Your task to perform on an android device: turn off smart reply in the gmail app Image 0: 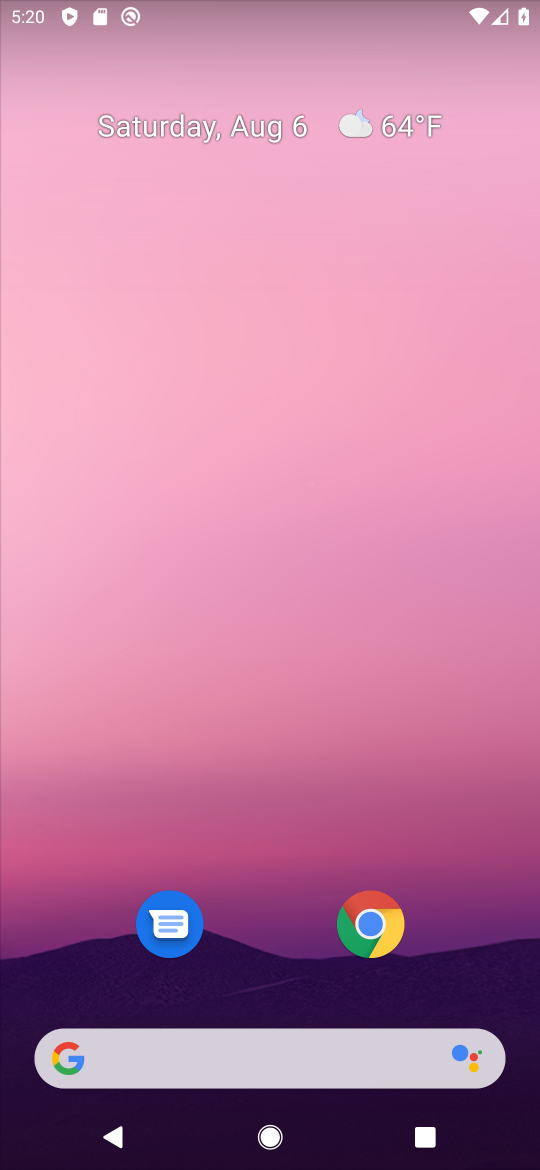
Step 0: drag from (285, 965) to (287, 318)
Your task to perform on an android device: turn off smart reply in the gmail app Image 1: 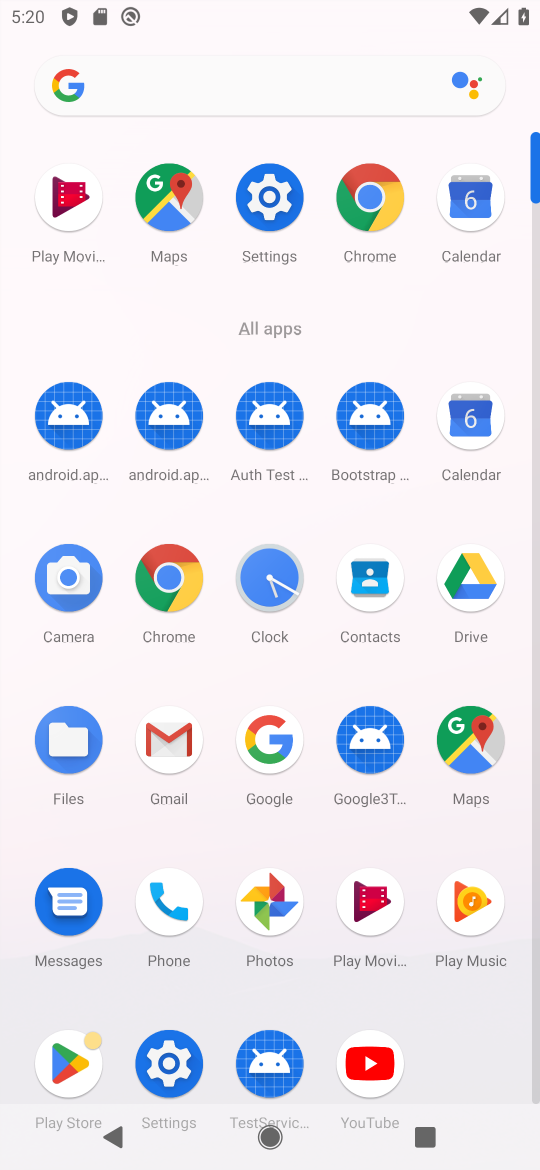
Step 1: click (164, 735)
Your task to perform on an android device: turn off smart reply in the gmail app Image 2: 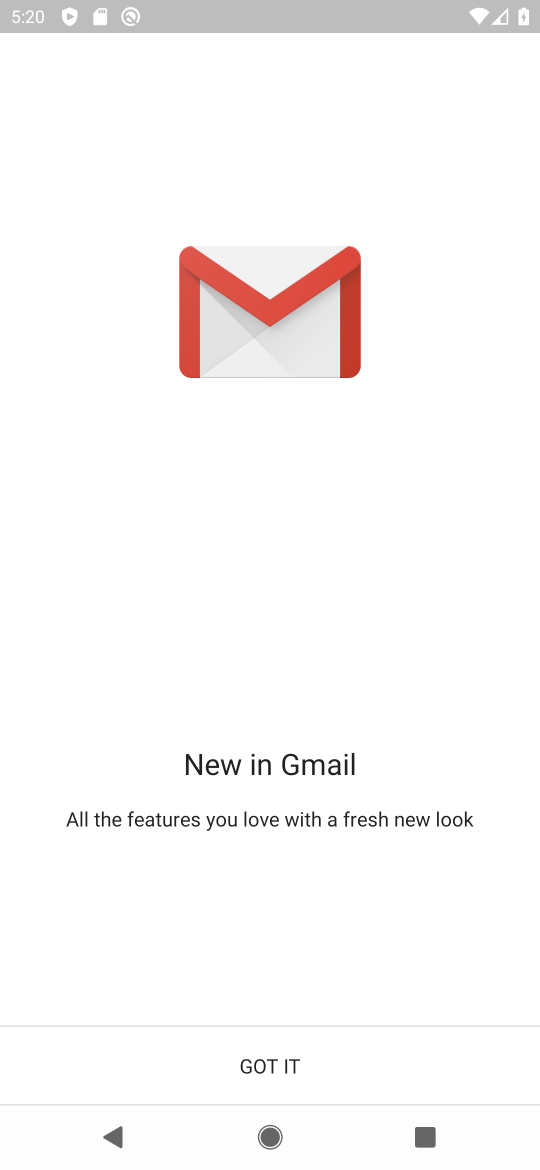
Step 2: click (278, 1064)
Your task to perform on an android device: turn off smart reply in the gmail app Image 3: 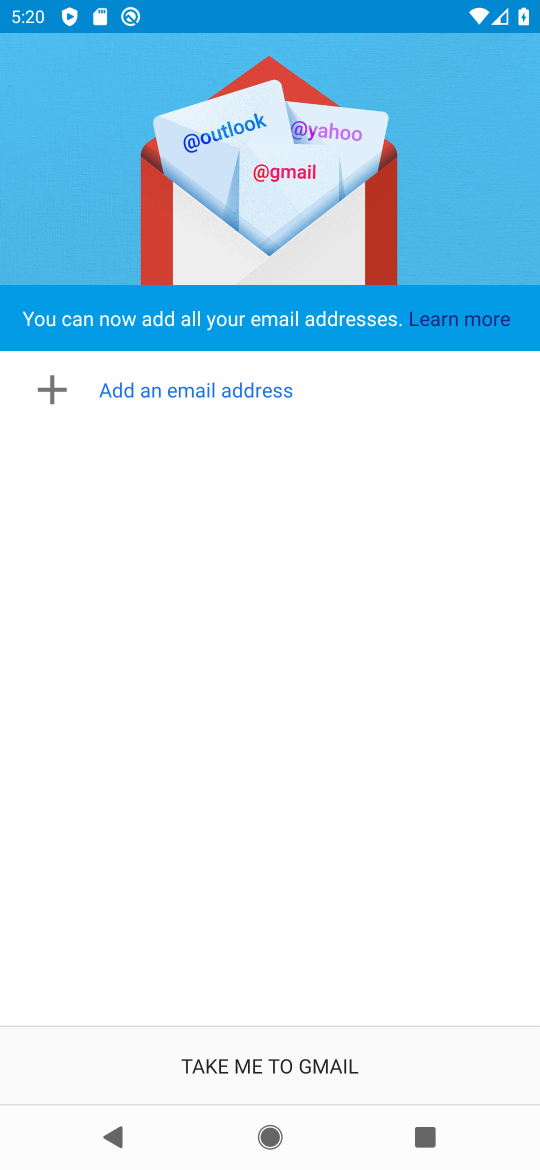
Step 3: click (278, 1064)
Your task to perform on an android device: turn off smart reply in the gmail app Image 4: 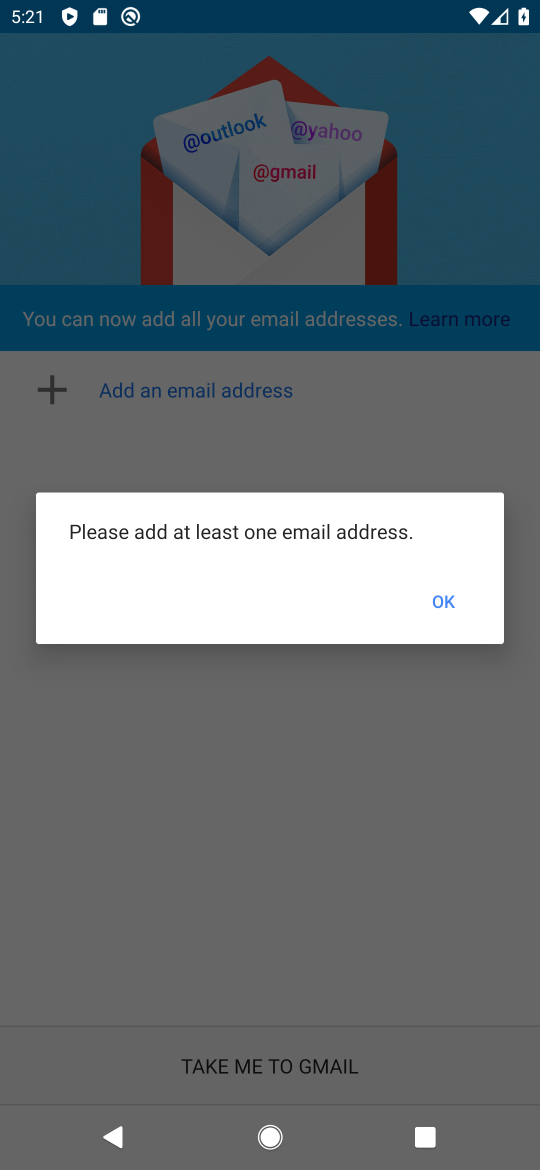
Step 4: click (446, 594)
Your task to perform on an android device: turn off smart reply in the gmail app Image 5: 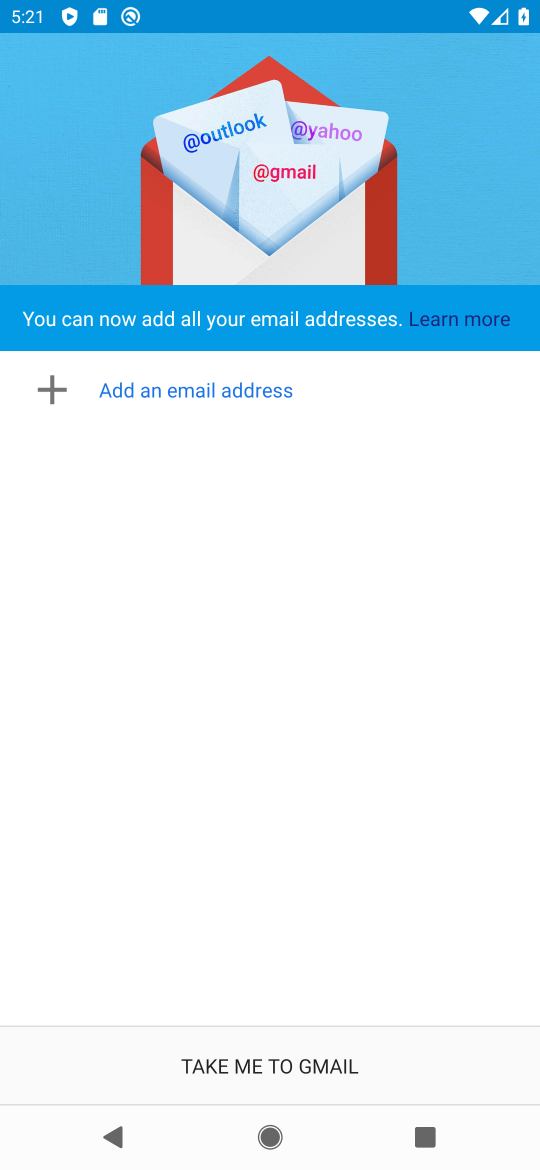
Step 5: click (254, 1059)
Your task to perform on an android device: turn off smart reply in the gmail app Image 6: 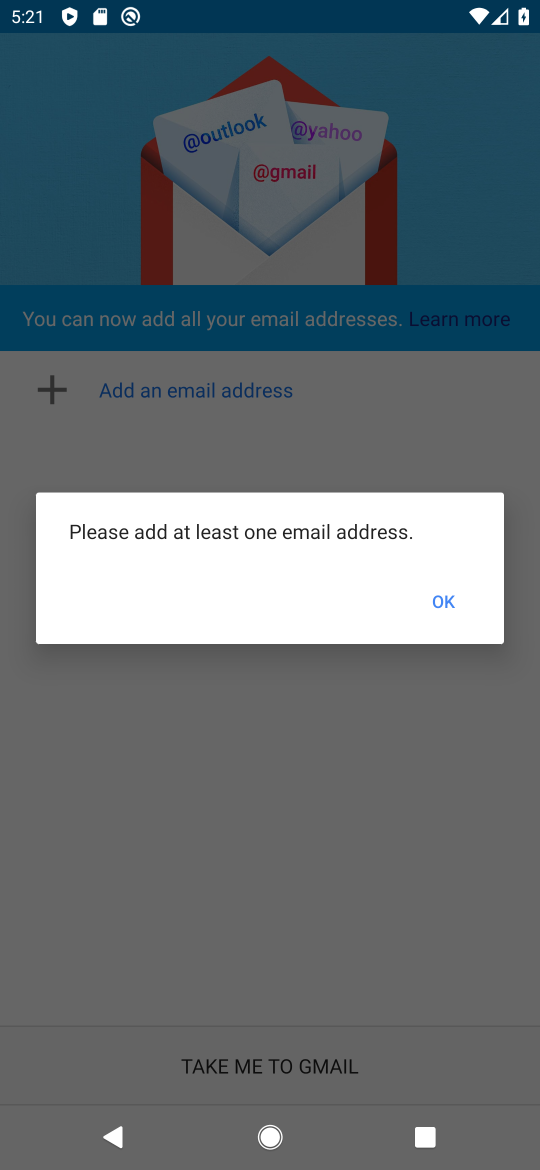
Step 6: task complete